Your task to perform on an android device: open app "Google Translate" Image 0: 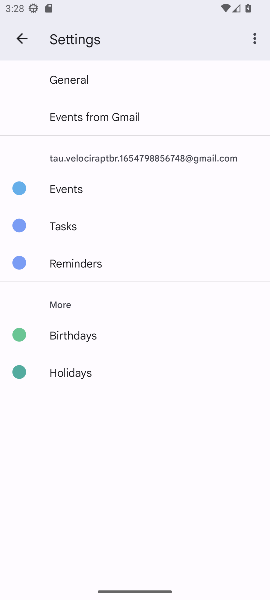
Step 0: press home button
Your task to perform on an android device: open app "Google Translate" Image 1: 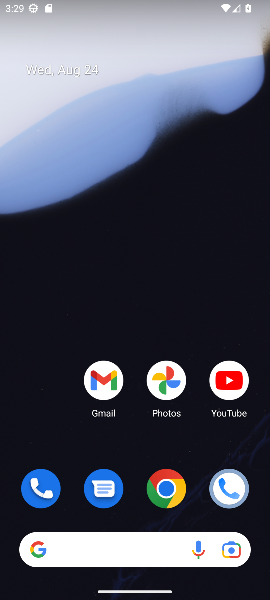
Step 1: drag from (138, 516) to (137, 116)
Your task to perform on an android device: open app "Google Translate" Image 2: 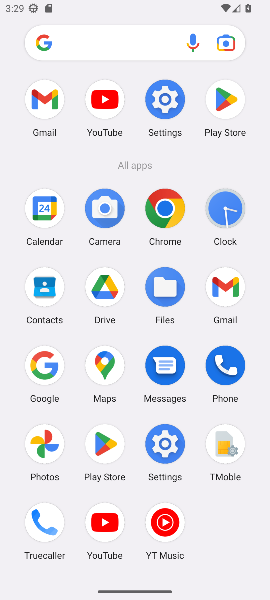
Step 2: click (234, 105)
Your task to perform on an android device: open app "Google Translate" Image 3: 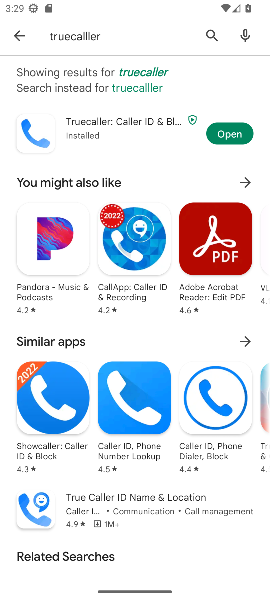
Step 3: click (207, 32)
Your task to perform on an android device: open app "Google Translate" Image 4: 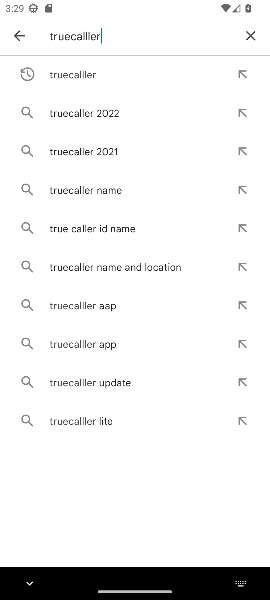
Step 4: click (239, 32)
Your task to perform on an android device: open app "Google Translate" Image 5: 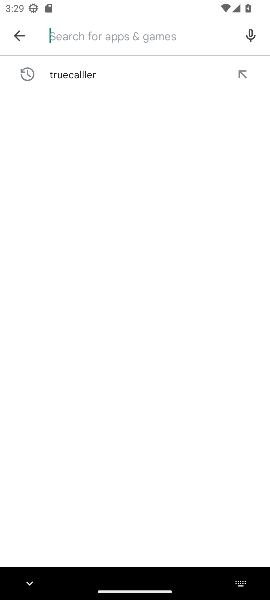
Step 5: type "google translate"
Your task to perform on an android device: open app "Google Translate" Image 6: 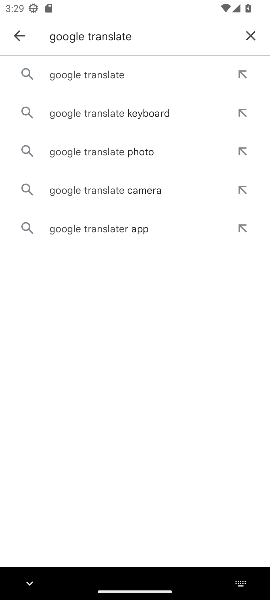
Step 6: click (111, 87)
Your task to perform on an android device: open app "Google Translate" Image 7: 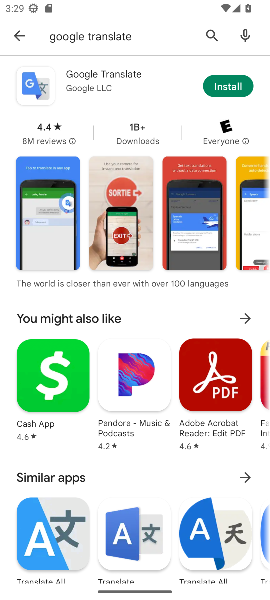
Step 7: click (232, 94)
Your task to perform on an android device: open app "Google Translate" Image 8: 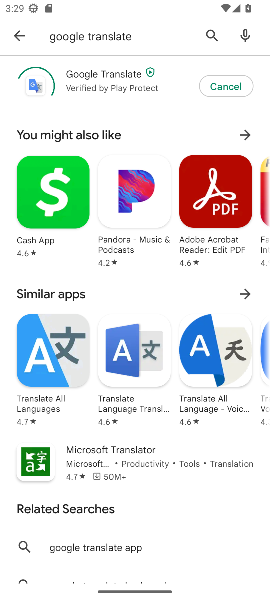
Step 8: task complete